Your task to perform on an android device: Open Youtube and go to the subscriptions tab Image 0: 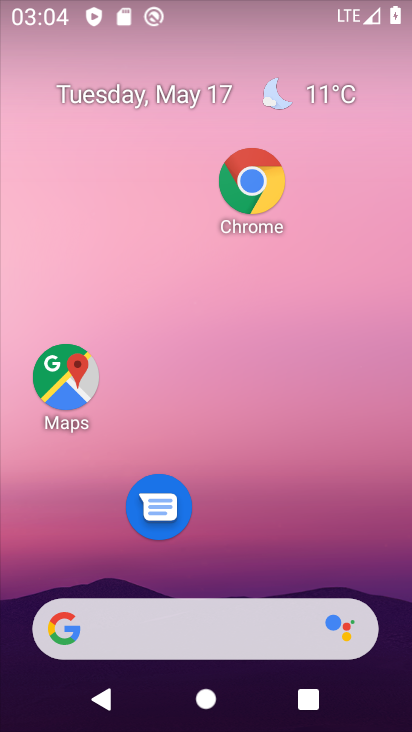
Step 0: drag from (243, 572) to (224, 210)
Your task to perform on an android device: Open Youtube and go to the subscriptions tab Image 1: 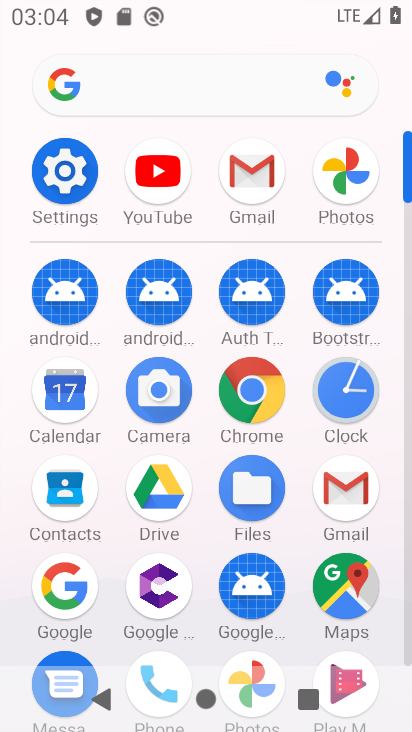
Step 1: click (166, 168)
Your task to perform on an android device: Open Youtube and go to the subscriptions tab Image 2: 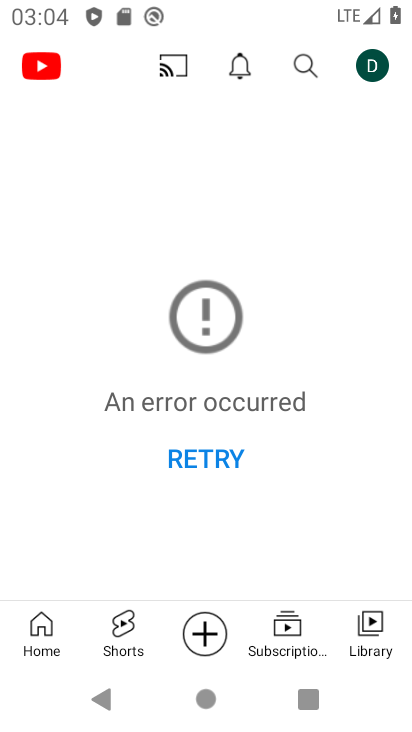
Step 2: click (291, 631)
Your task to perform on an android device: Open Youtube and go to the subscriptions tab Image 3: 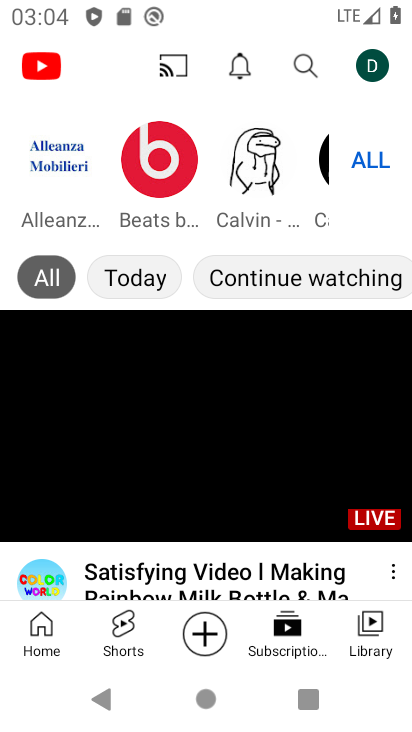
Step 3: task complete